Your task to perform on an android device: set default search engine in the chrome app Image 0: 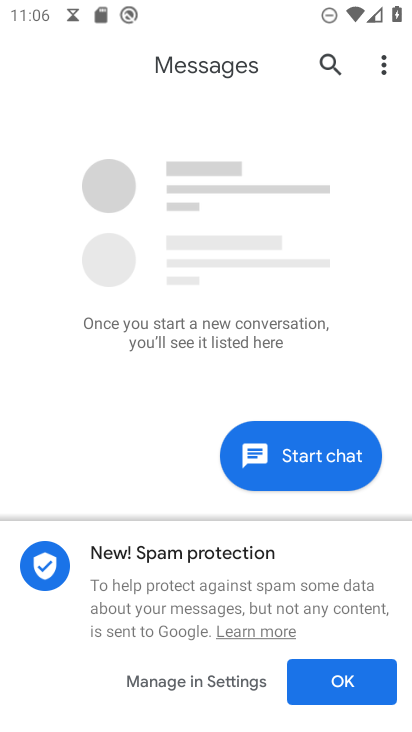
Step 0: press home button
Your task to perform on an android device: set default search engine in the chrome app Image 1: 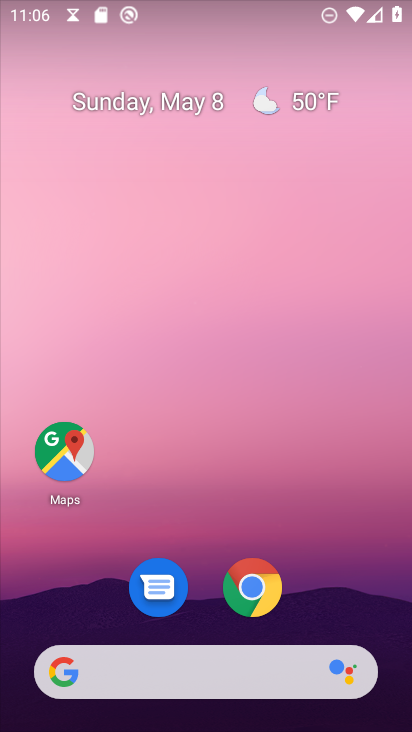
Step 1: click (249, 580)
Your task to perform on an android device: set default search engine in the chrome app Image 2: 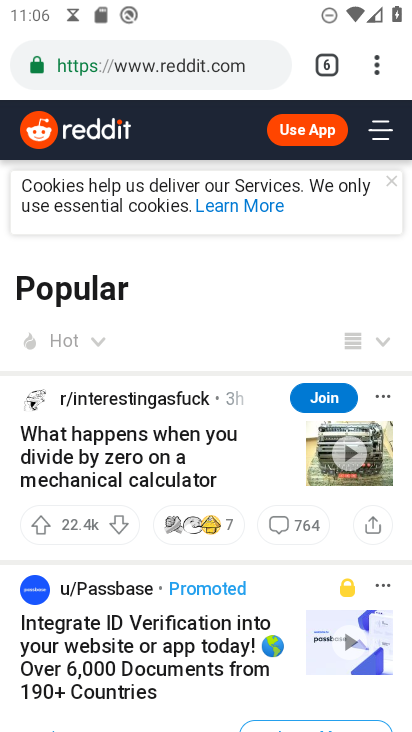
Step 2: drag from (376, 63) to (167, 638)
Your task to perform on an android device: set default search engine in the chrome app Image 3: 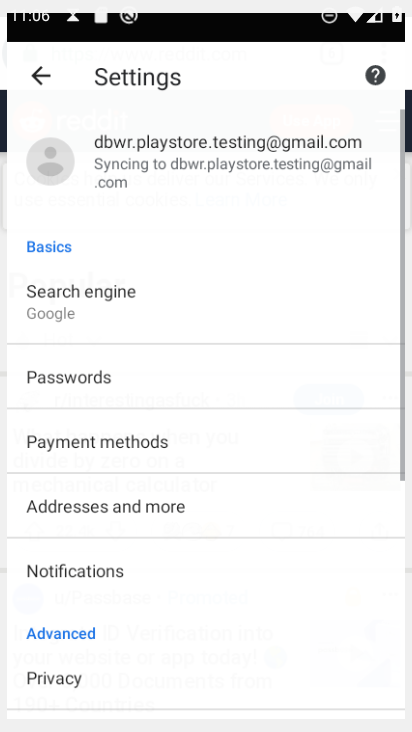
Step 3: click (165, 630)
Your task to perform on an android device: set default search engine in the chrome app Image 4: 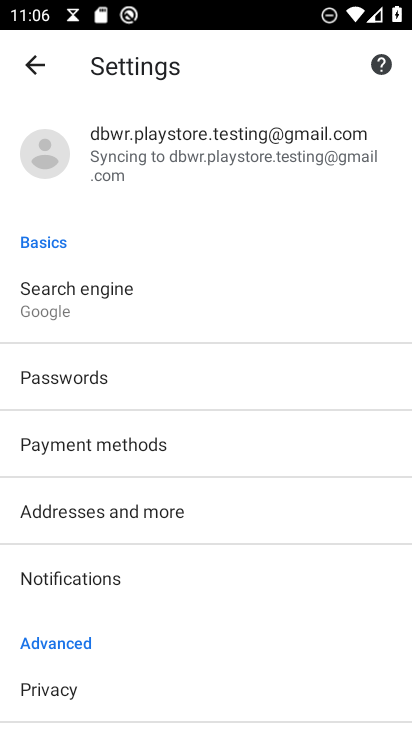
Step 4: click (86, 291)
Your task to perform on an android device: set default search engine in the chrome app Image 5: 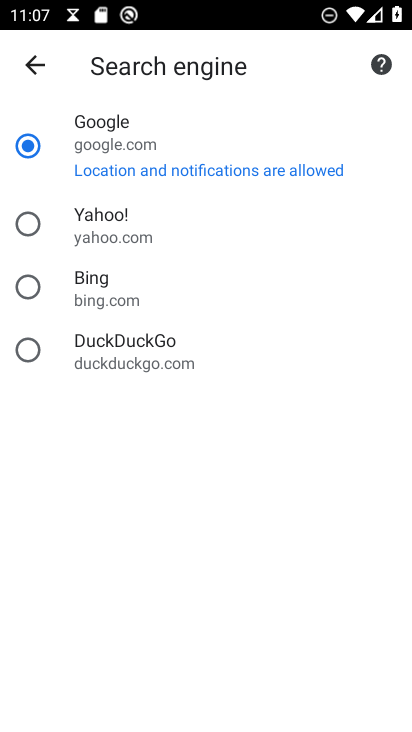
Step 5: click (86, 290)
Your task to perform on an android device: set default search engine in the chrome app Image 6: 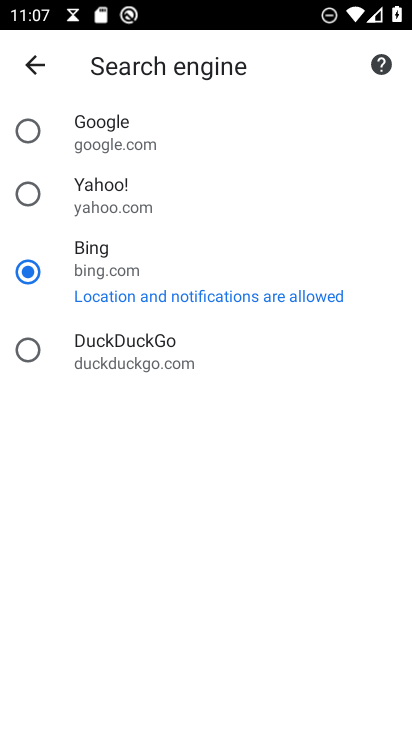
Step 6: task complete